Your task to perform on an android device: open the mobile data screen to see how much data has been used Image 0: 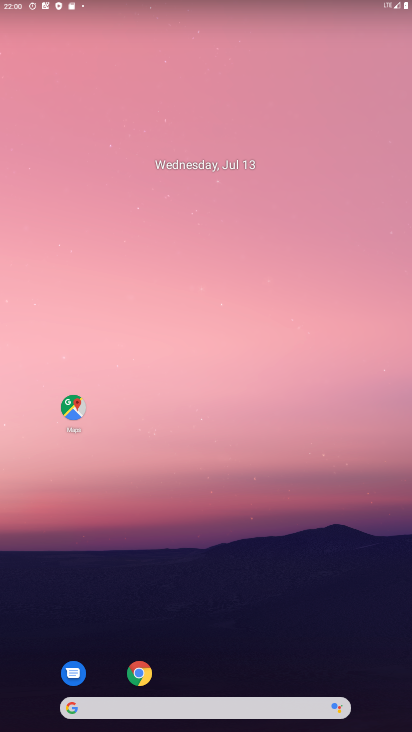
Step 0: click (188, 2)
Your task to perform on an android device: open the mobile data screen to see how much data has been used Image 1: 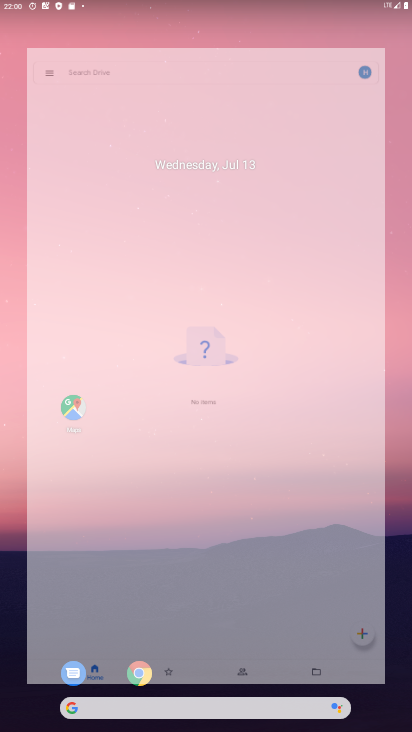
Step 1: drag from (193, 454) to (217, 20)
Your task to perform on an android device: open the mobile data screen to see how much data has been used Image 2: 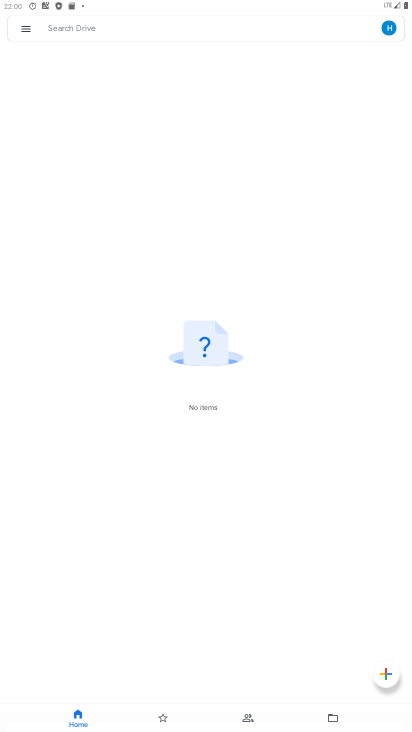
Step 2: press home button
Your task to perform on an android device: open the mobile data screen to see how much data has been used Image 3: 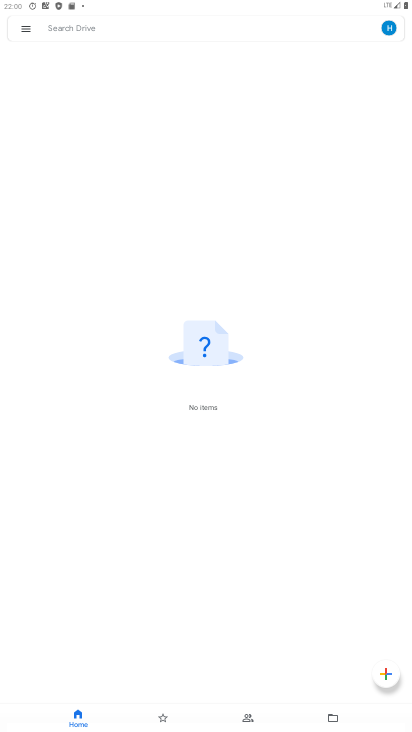
Step 3: press home button
Your task to perform on an android device: open the mobile data screen to see how much data has been used Image 4: 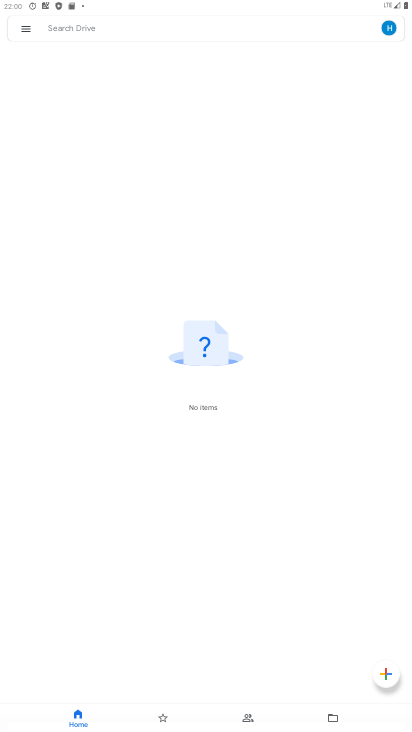
Step 4: click (234, 155)
Your task to perform on an android device: open the mobile data screen to see how much data has been used Image 5: 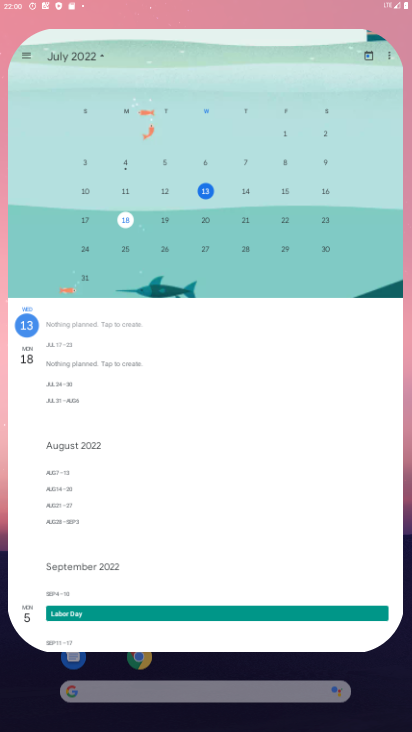
Step 5: drag from (212, 405) to (265, 129)
Your task to perform on an android device: open the mobile data screen to see how much data has been used Image 6: 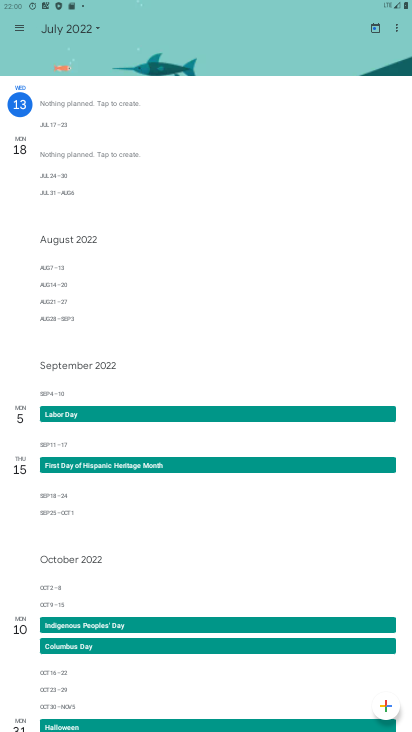
Step 6: press home button
Your task to perform on an android device: open the mobile data screen to see how much data has been used Image 7: 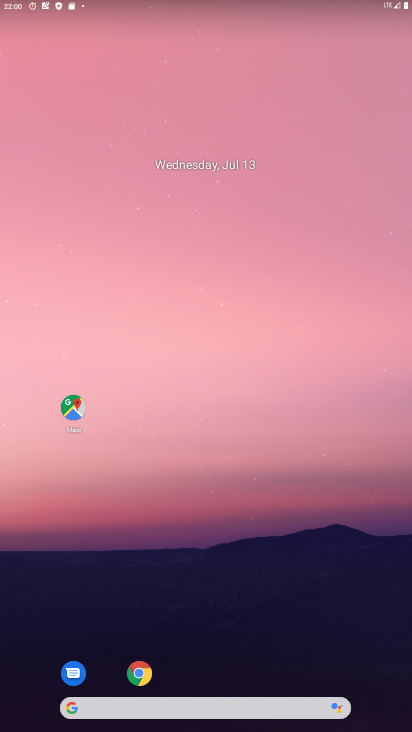
Step 7: drag from (243, 563) to (262, 66)
Your task to perform on an android device: open the mobile data screen to see how much data has been used Image 8: 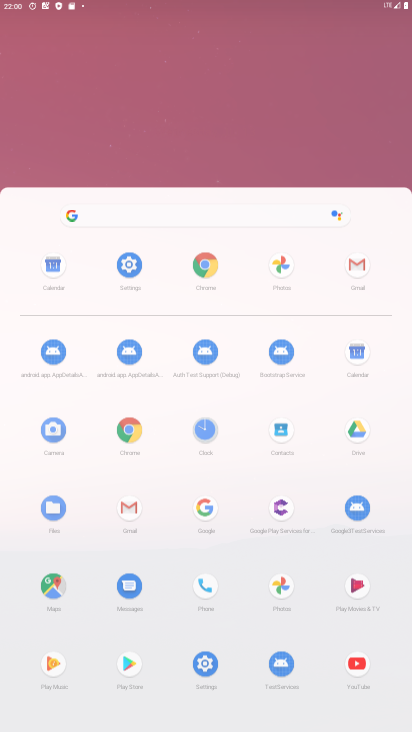
Step 8: drag from (252, 314) to (261, 169)
Your task to perform on an android device: open the mobile data screen to see how much data has been used Image 9: 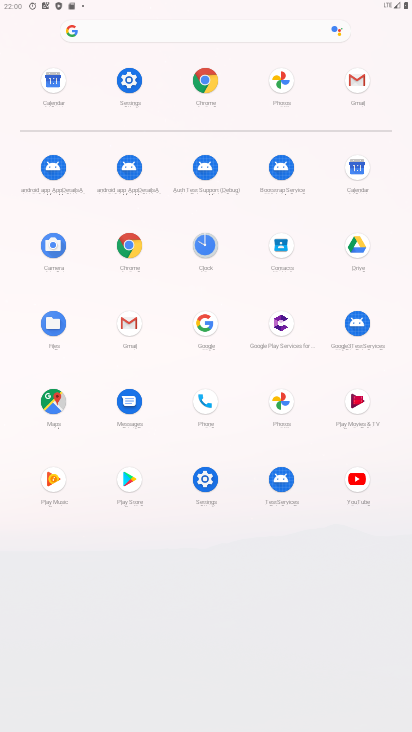
Step 9: click (202, 483)
Your task to perform on an android device: open the mobile data screen to see how much data has been used Image 10: 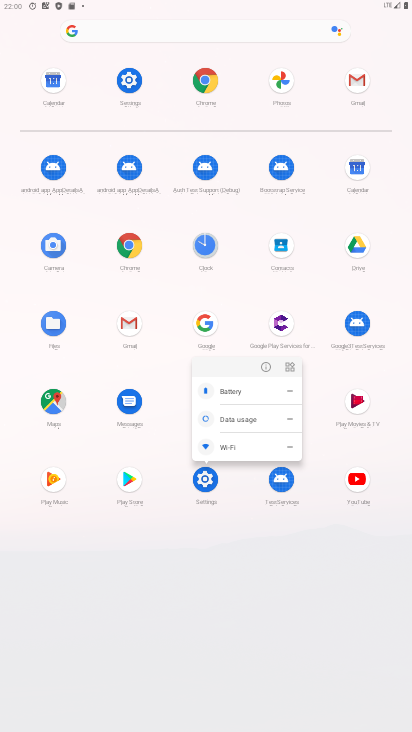
Step 10: click (260, 366)
Your task to perform on an android device: open the mobile data screen to see how much data has been used Image 11: 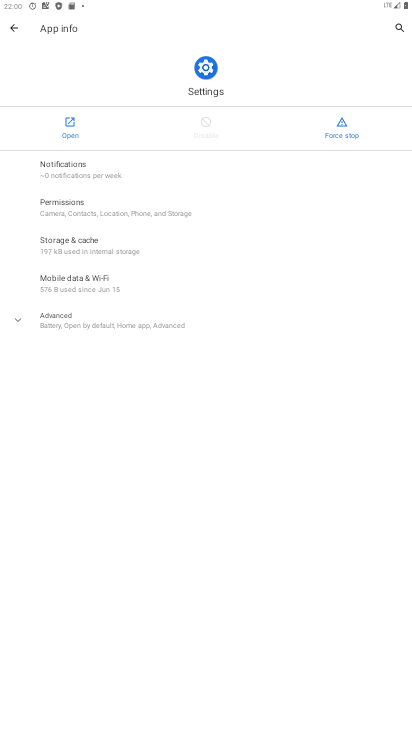
Step 11: click (66, 124)
Your task to perform on an android device: open the mobile data screen to see how much data has been used Image 12: 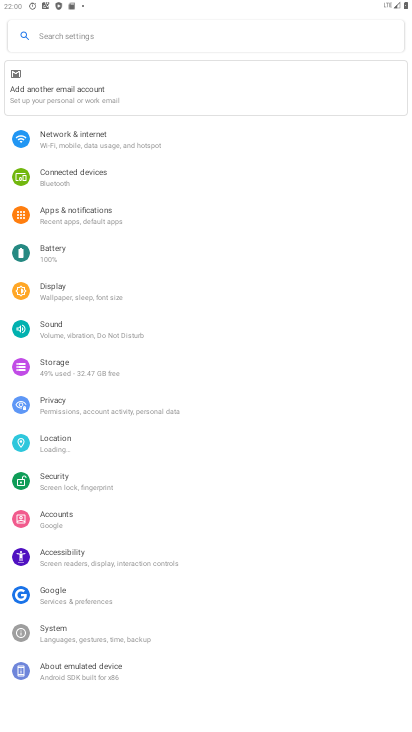
Step 12: drag from (216, 532) to (245, 219)
Your task to perform on an android device: open the mobile data screen to see how much data has been used Image 13: 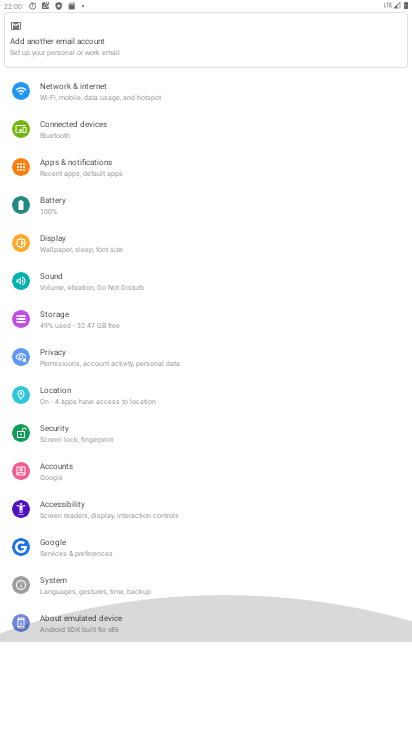
Step 13: drag from (245, 195) to (229, 682)
Your task to perform on an android device: open the mobile data screen to see how much data has been used Image 14: 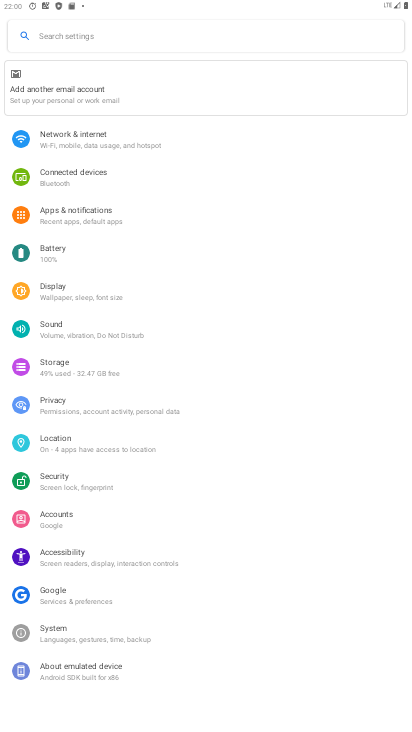
Step 14: click (147, 142)
Your task to perform on an android device: open the mobile data screen to see how much data has been used Image 15: 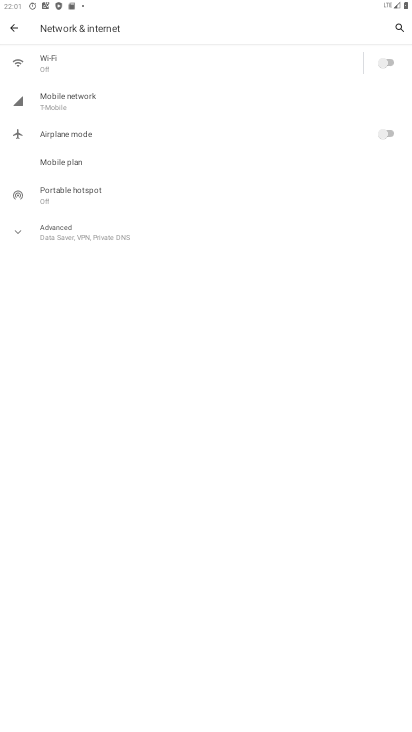
Step 15: click (94, 101)
Your task to perform on an android device: open the mobile data screen to see how much data has been used Image 16: 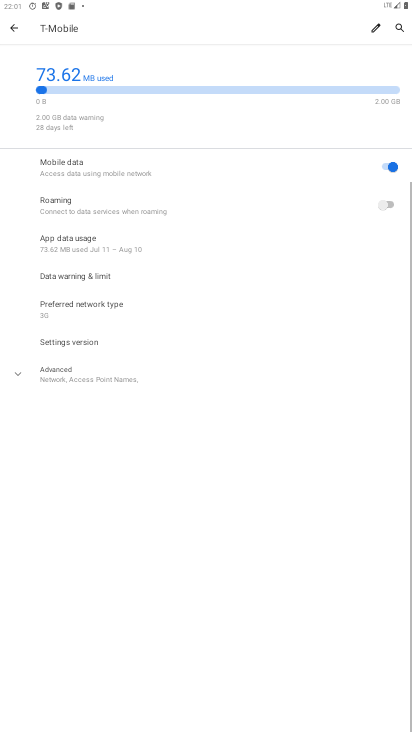
Step 16: task complete